Your task to perform on an android device: toggle translation in the chrome app Image 0: 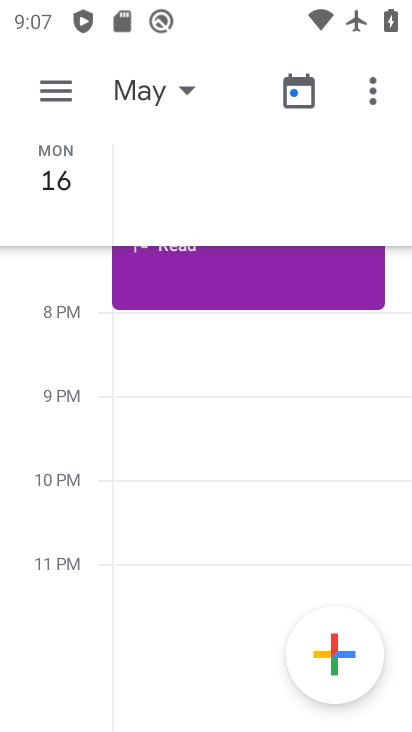
Step 0: press home button
Your task to perform on an android device: toggle translation in the chrome app Image 1: 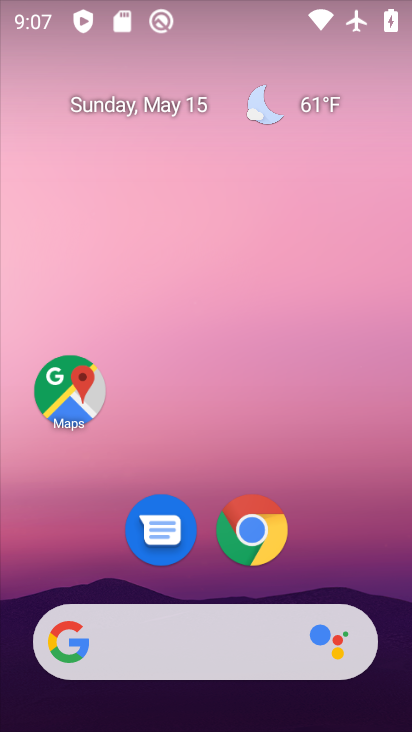
Step 1: click (255, 530)
Your task to perform on an android device: toggle translation in the chrome app Image 2: 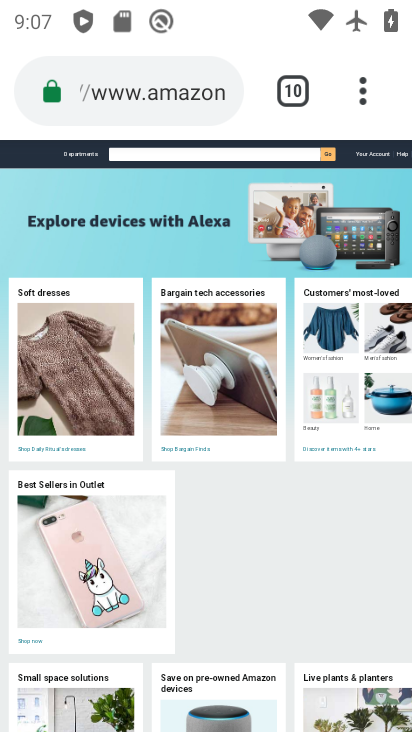
Step 2: click (364, 99)
Your task to perform on an android device: toggle translation in the chrome app Image 3: 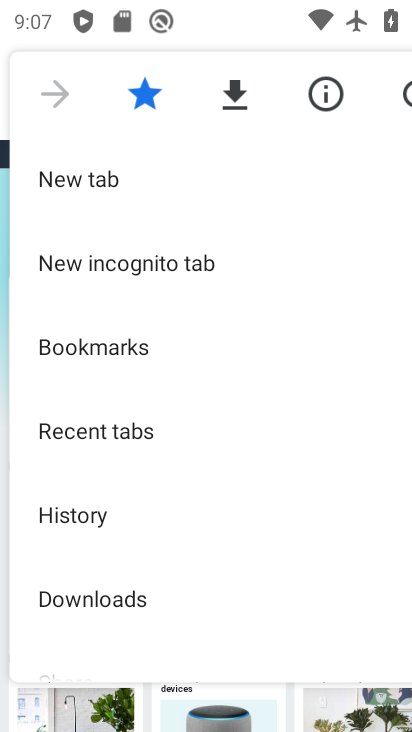
Step 3: drag from (86, 607) to (82, 237)
Your task to perform on an android device: toggle translation in the chrome app Image 4: 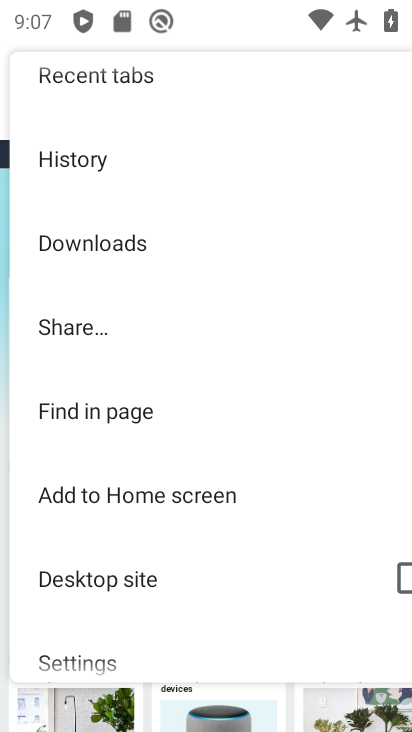
Step 4: click (78, 658)
Your task to perform on an android device: toggle translation in the chrome app Image 5: 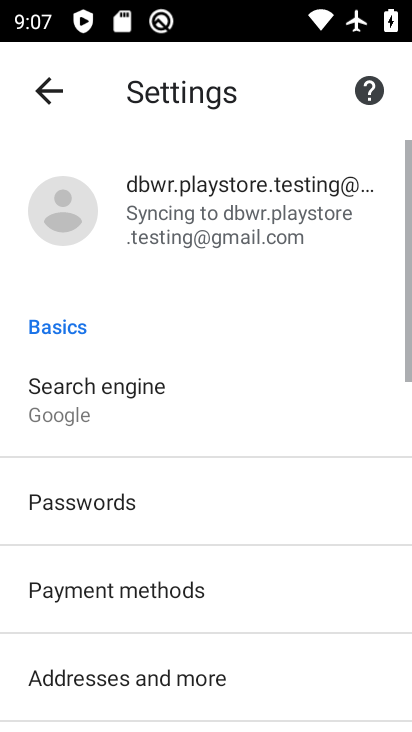
Step 5: drag from (114, 652) to (123, 232)
Your task to perform on an android device: toggle translation in the chrome app Image 6: 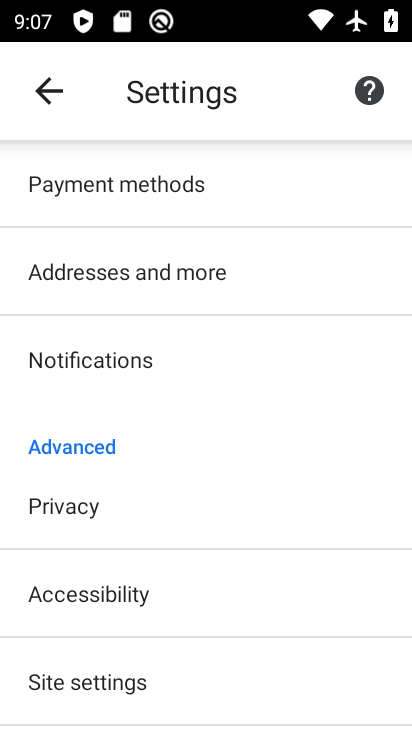
Step 6: drag from (117, 654) to (141, 355)
Your task to perform on an android device: toggle translation in the chrome app Image 7: 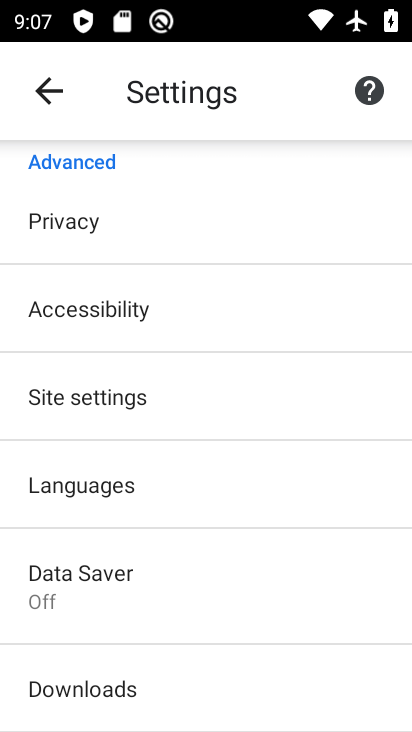
Step 7: click (83, 481)
Your task to perform on an android device: toggle translation in the chrome app Image 8: 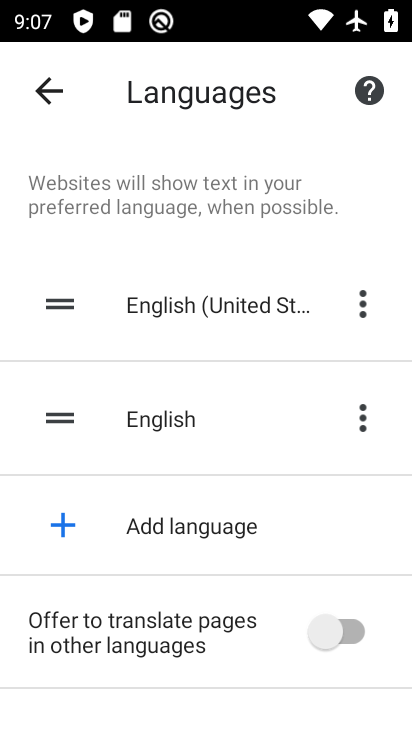
Step 8: click (364, 626)
Your task to perform on an android device: toggle translation in the chrome app Image 9: 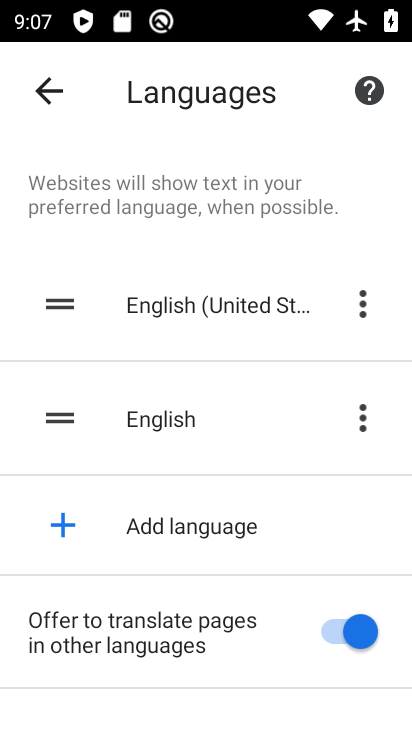
Step 9: task complete